Your task to perform on an android device: turn vacation reply on in the gmail app Image 0: 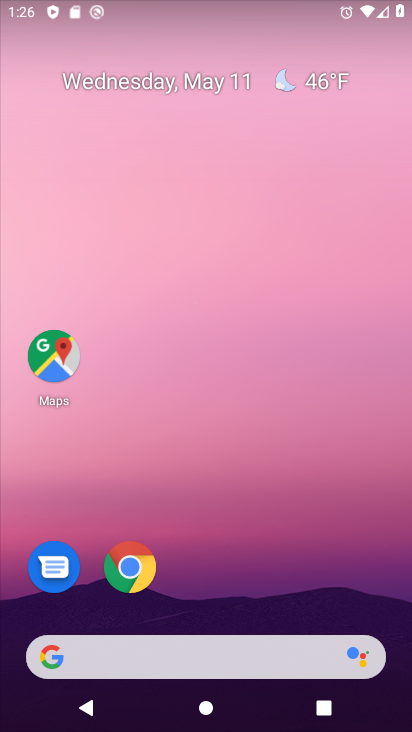
Step 0: drag from (234, 627) to (138, 0)
Your task to perform on an android device: turn vacation reply on in the gmail app Image 1: 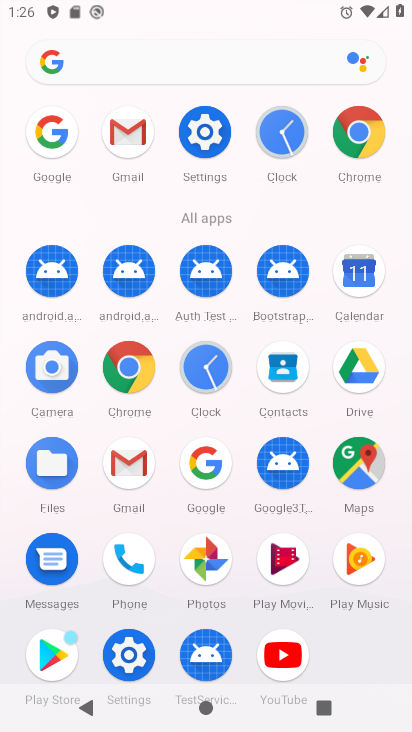
Step 1: click (138, 470)
Your task to perform on an android device: turn vacation reply on in the gmail app Image 2: 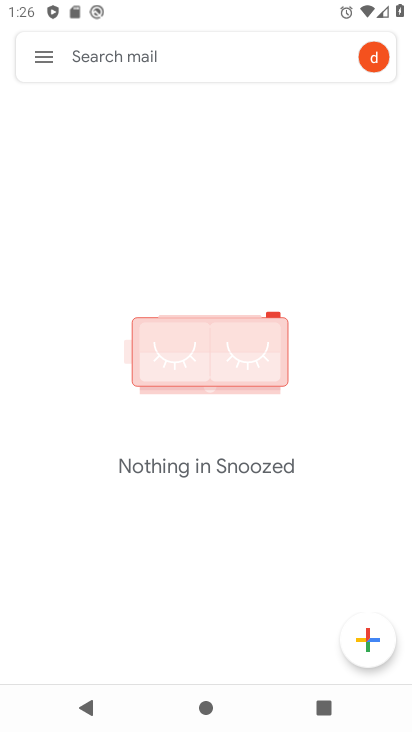
Step 2: click (35, 51)
Your task to perform on an android device: turn vacation reply on in the gmail app Image 3: 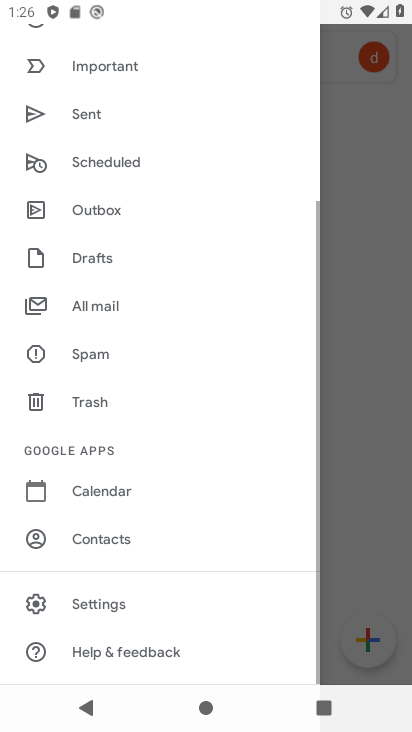
Step 3: click (94, 580)
Your task to perform on an android device: turn vacation reply on in the gmail app Image 4: 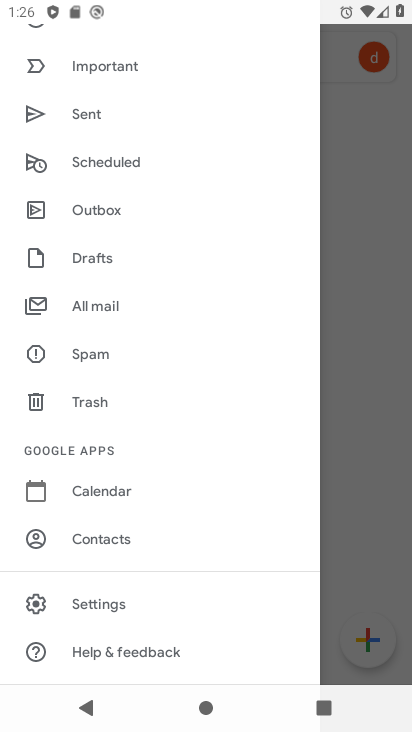
Step 4: click (102, 610)
Your task to perform on an android device: turn vacation reply on in the gmail app Image 5: 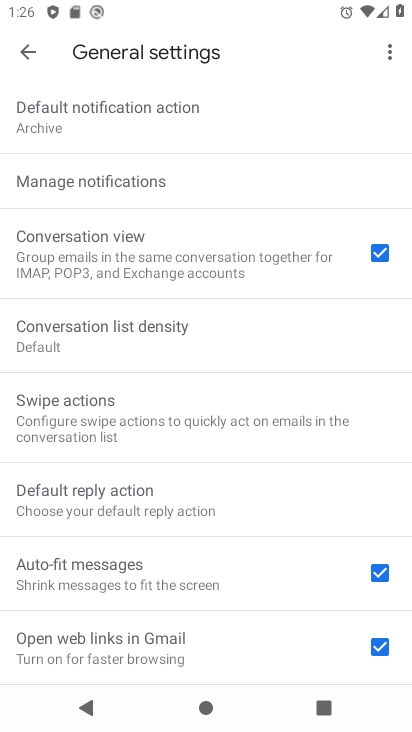
Step 5: click (24, 28)
Your task to perform on an android device: turn vacation reply on in the gmail app Image 6: 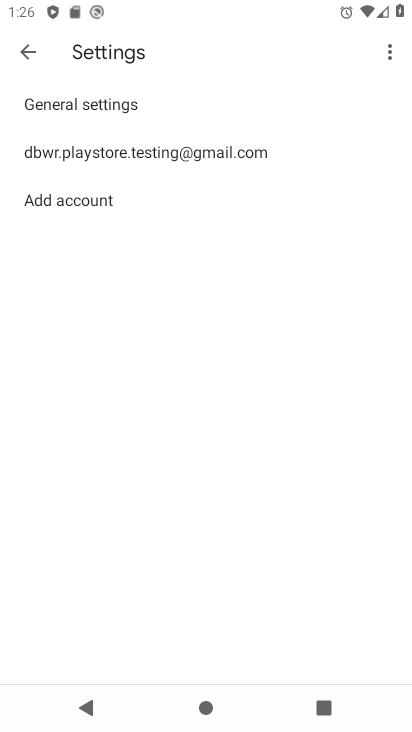
Step 6: click (87, 150)
Your task to perform on an android device: turn vacation reply on in the gmail app Image 7: 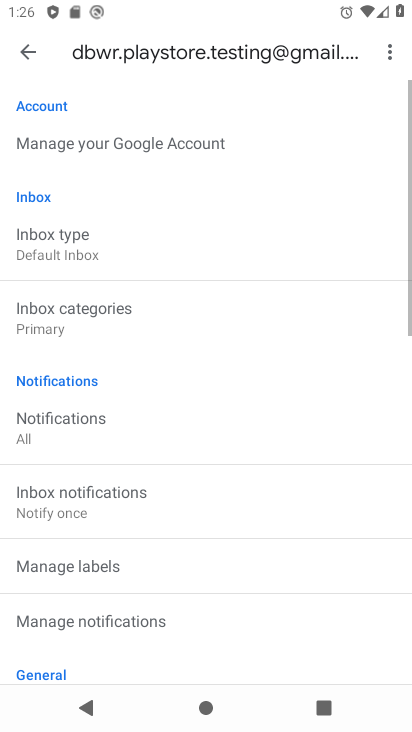
Step 7: drag from (138, 632) to (103, 129)
Your task to perform on an android device: turn vacation reply on in the gmail app Image 8: 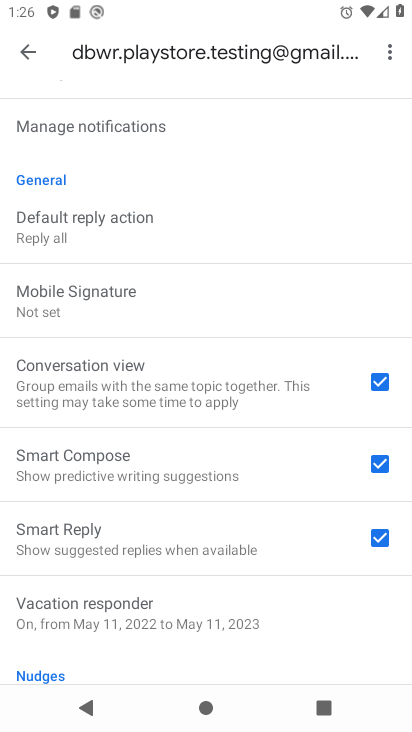
Step 8: click (145, 619)
Your task to perform on an android device: turn vacation reply on in the gmail app Image 9: 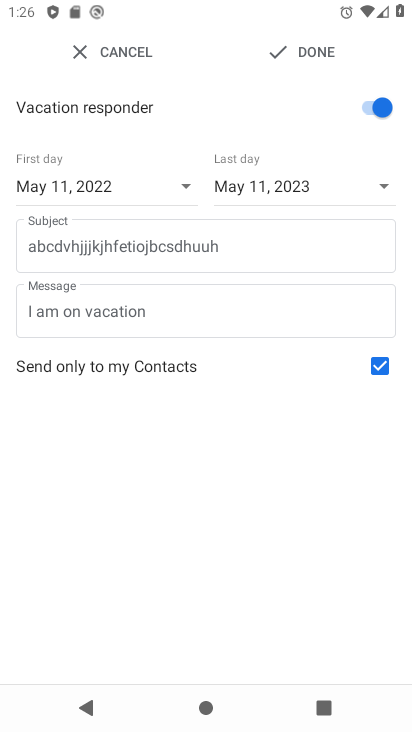
Step 9: click (313, 43)
Your task to perform on an android device: turn vacation reply on in the gmail app Image 10: 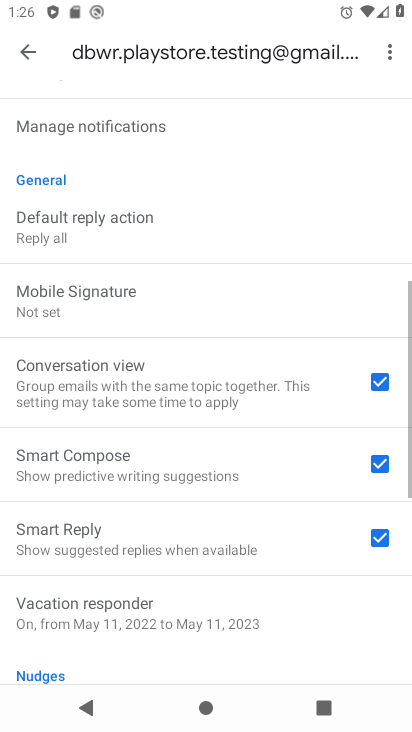
Step 10: task complete